Your task to perform on an android device: install app "Indeed Job Search" Image 0: 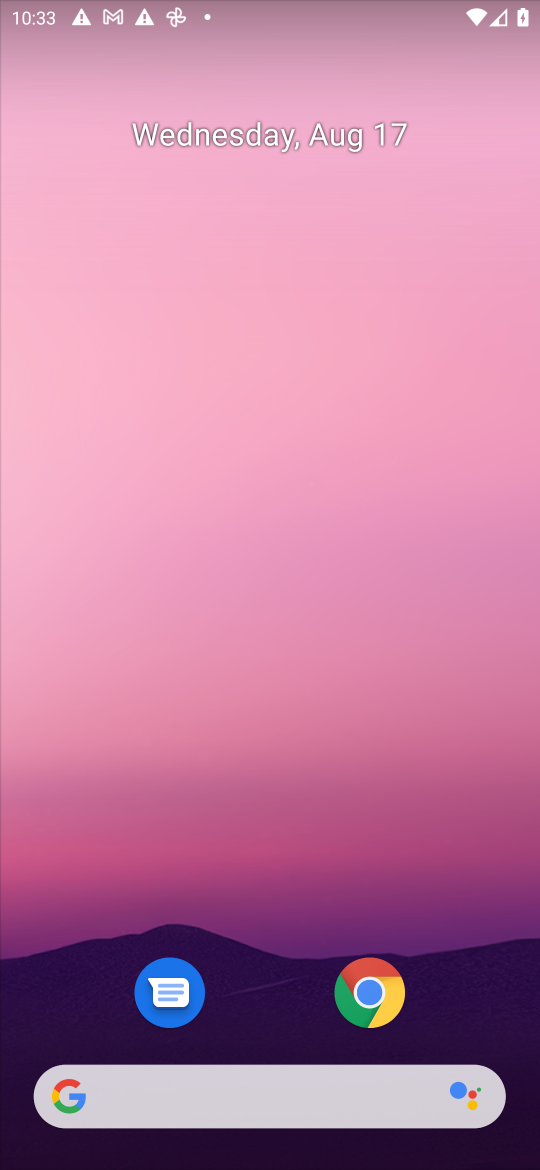
Step 0: drag from (513, 1000) to (339, 28)
Your task to perform on an android device: install app "Indeed Job Search" Image 1: 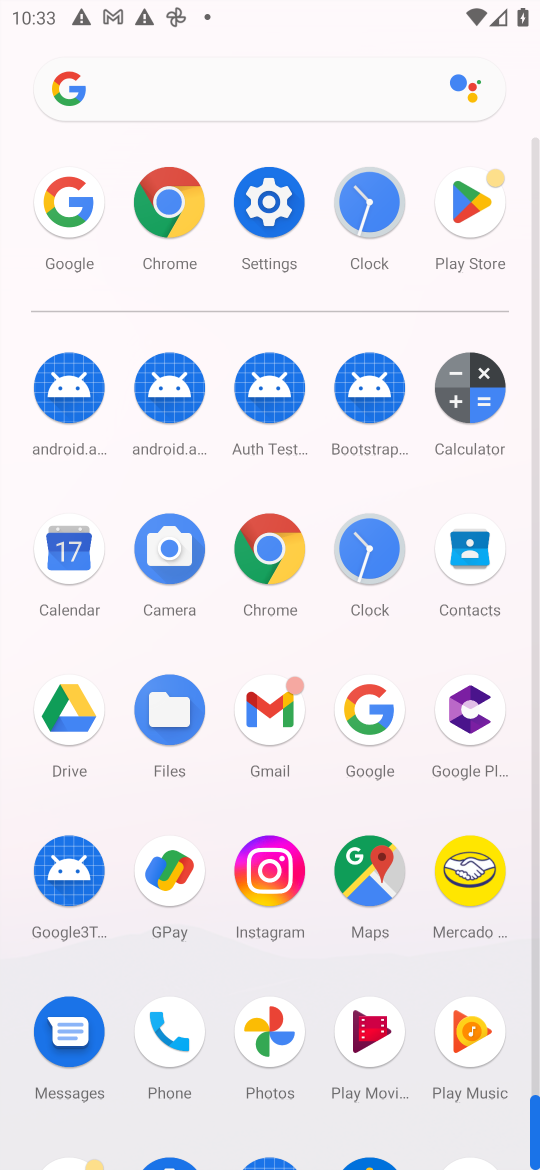
Step 1: click (446, 229)
Your task to perform on an android device: install app "Indeed Job Search" Image 2: 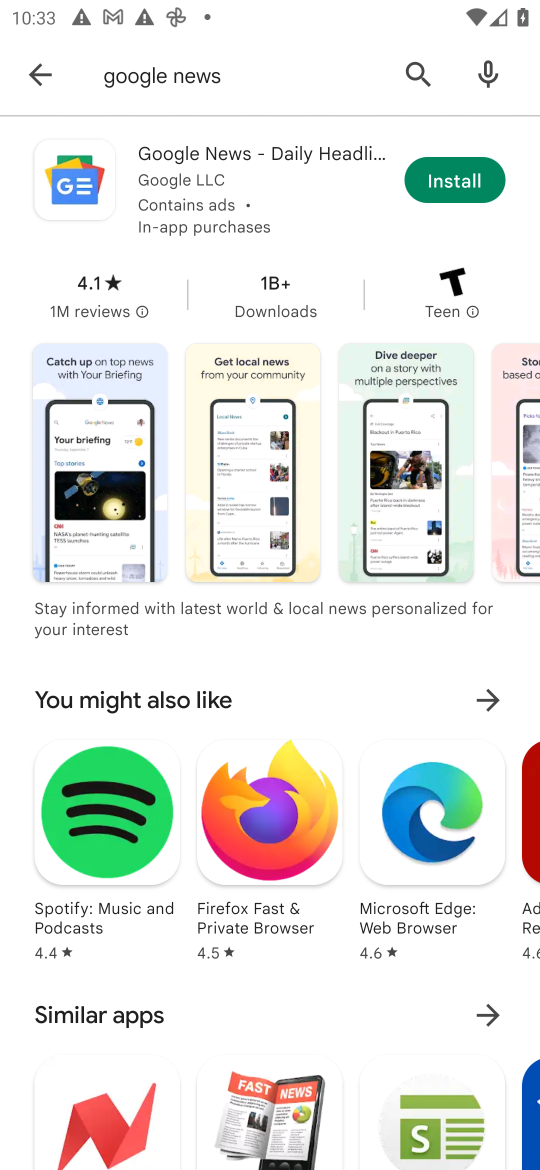
Step 2: press back button
Your task to perform on an android device: install app "Indeed Job Search" Image 3: 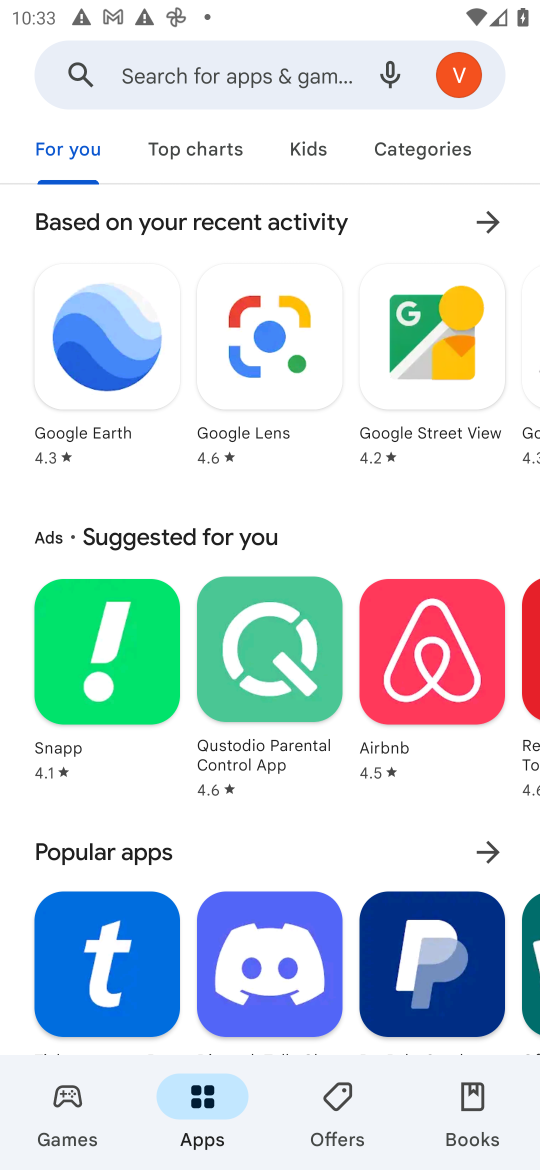
Step 3: click (141, 80)
Your task to perform on an android device: install app "Indeed Job Search" Image 4: 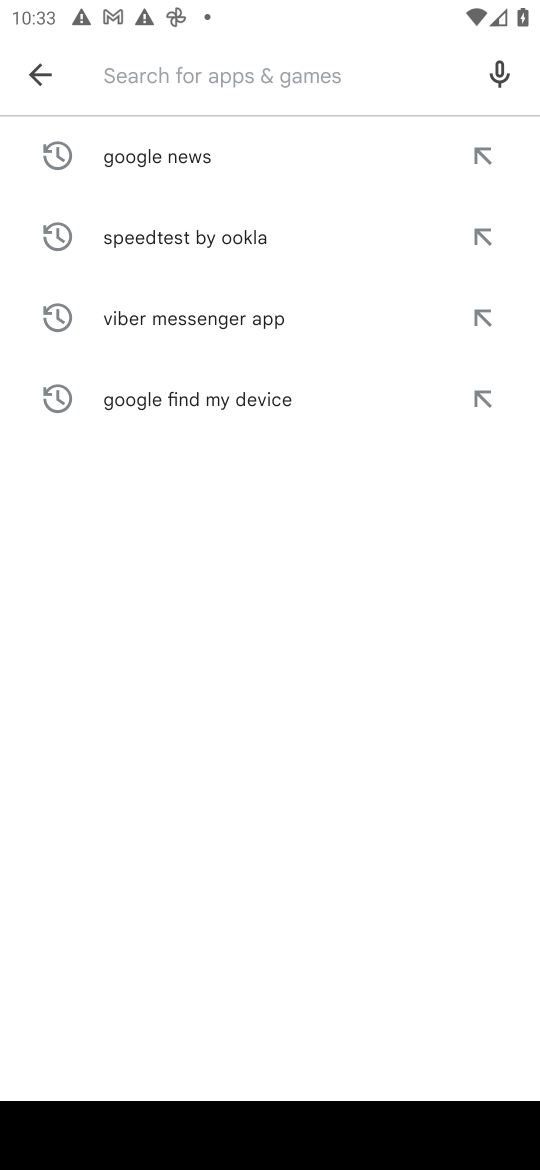
Step 4: type "Indeed Job Search"
Your task to perform on an android device: install app "Indeed Job Search" Image 5: 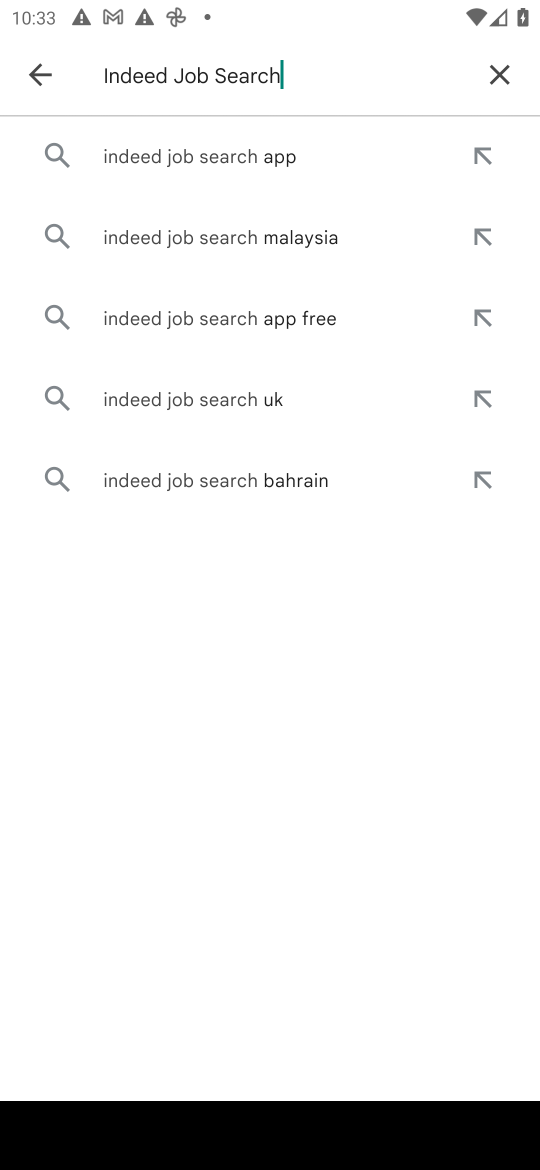
Step 5: click (177, 153)
Your task to perform on an android device: install app "Indeed Job Search" Image 6: 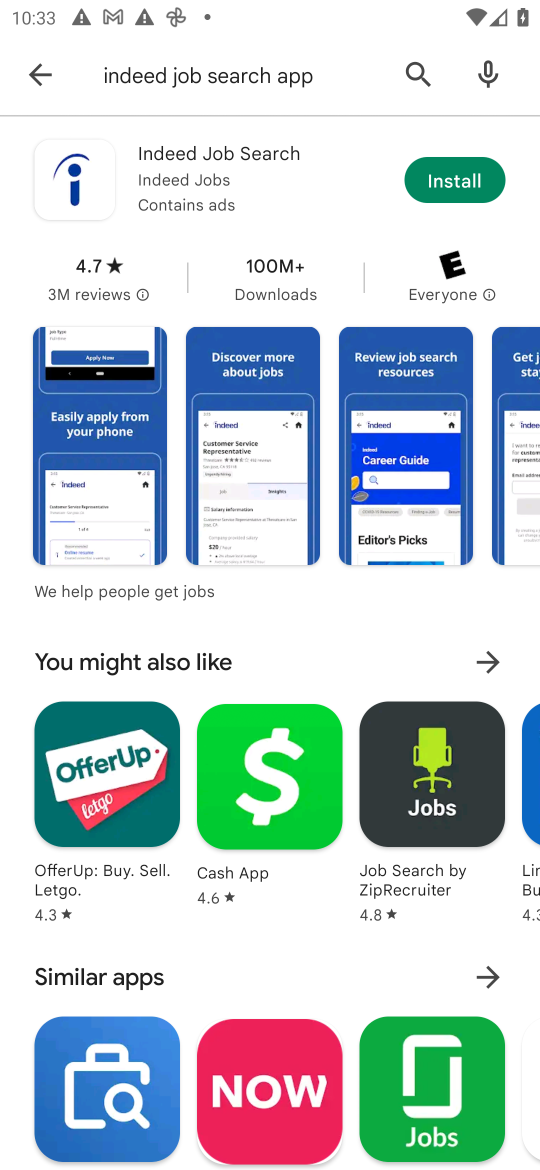
Step 6: click (442, 178)
Your task to perform on an android device: install app "Indeed Job Search" Image 7: 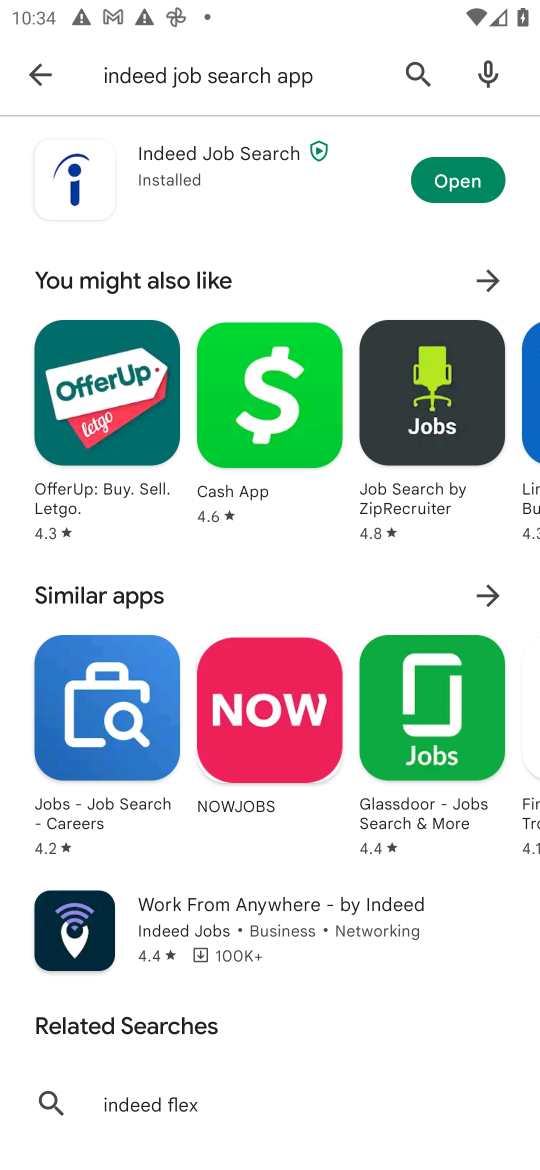
Step 7: task complete